Your task to perform on an android device: Search for vegetarian restaurants on Maps Image 0: 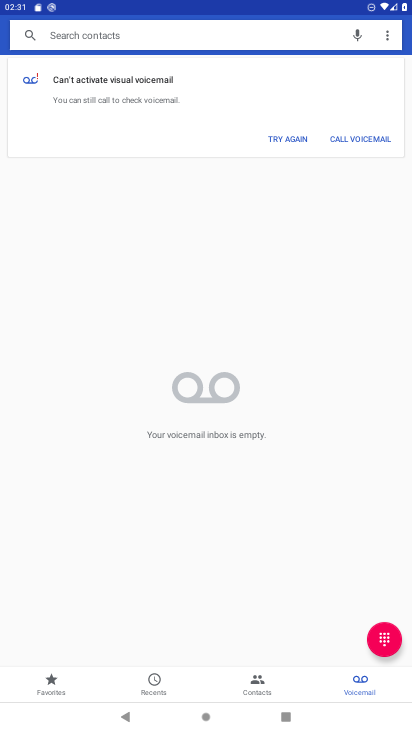
Step 0: press home button
Your task to perform on an android device: Search for vegetarian restaurants on Maps Image 1: 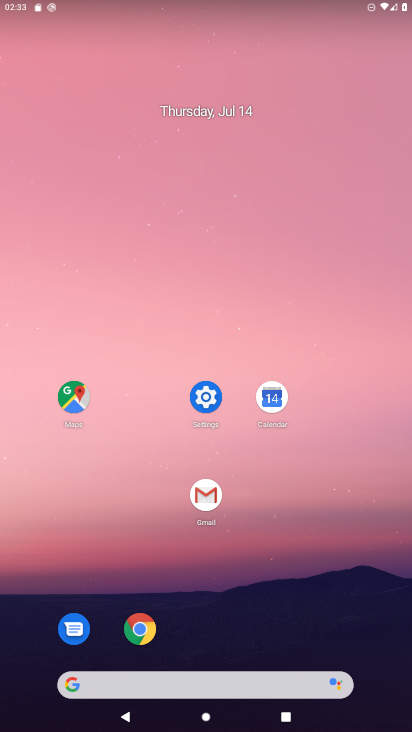
Step 1: click (84, 404)
Your task to perform on an android device: Search for vegetarian restaurants on Maps Image 2: 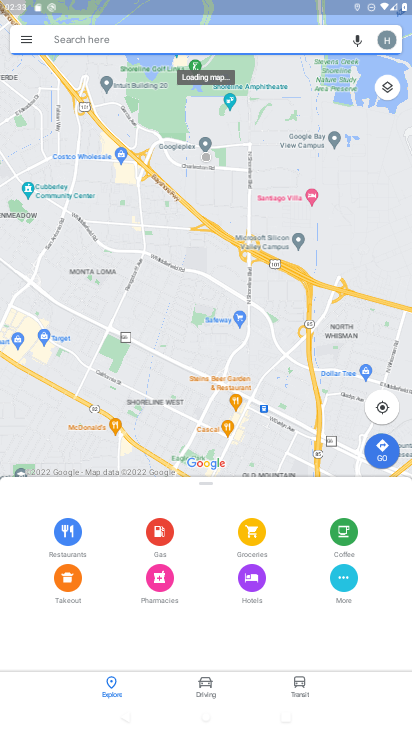
Step 2: click (153, 44)
Your task to perform on an android device: Search for vegetarian restaurants on Maps Image 3: 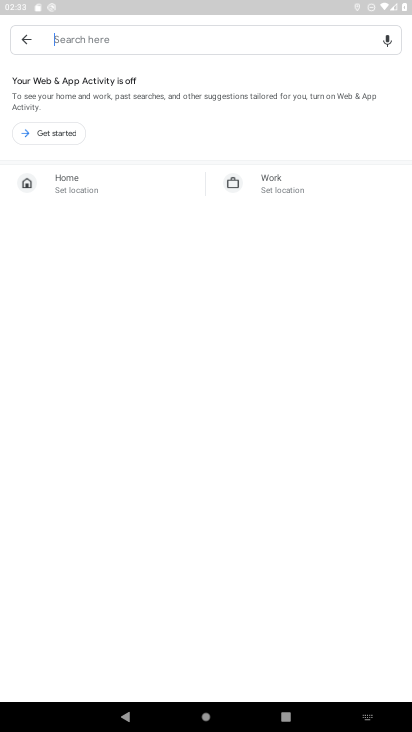
Step 3: type "vegetarian restaurants"
Your task to perform on an android device: Search for vegetarian restaurants on Maps Image 4: 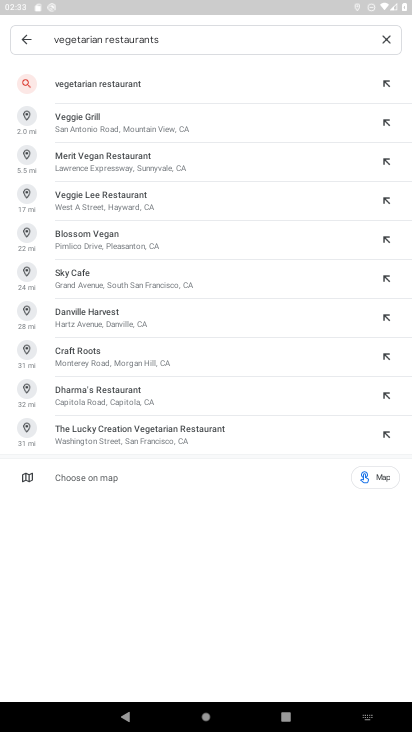
Step 4: click (110, 84)
Your task to perform on an android device: Search for vegetarian restaurants on Maps Image 5: 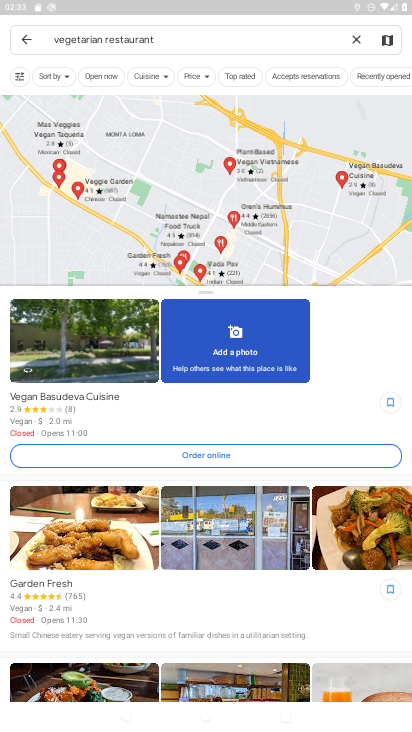
Step 5: task complete